Your task to perform on an android device: Open notification settings Image 0: 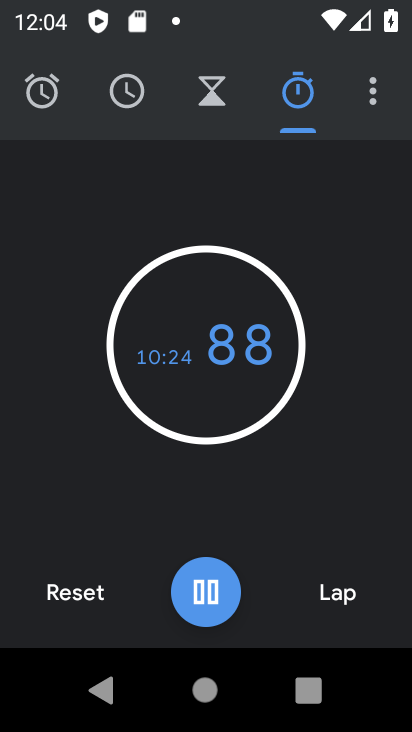
Step 0: press home button
Your task to perform on an android device: Open notification settings Image 1: 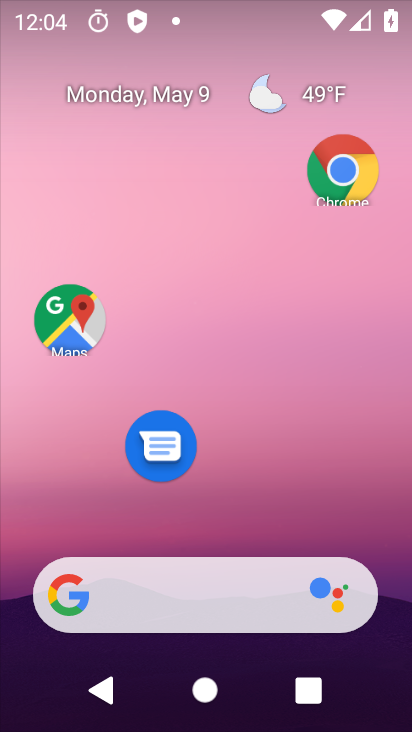
Step 1: drag from (237, 484) to (350, 143)
Your task to perform on an android device: Open notification settings Image 2: 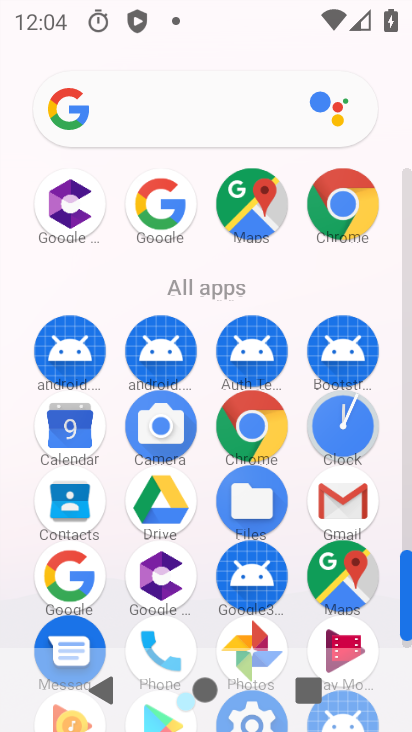
Step 2: drag from (74, 593) to (295, 175)
Your task to perform on an android device: Open notification settings Image 3: 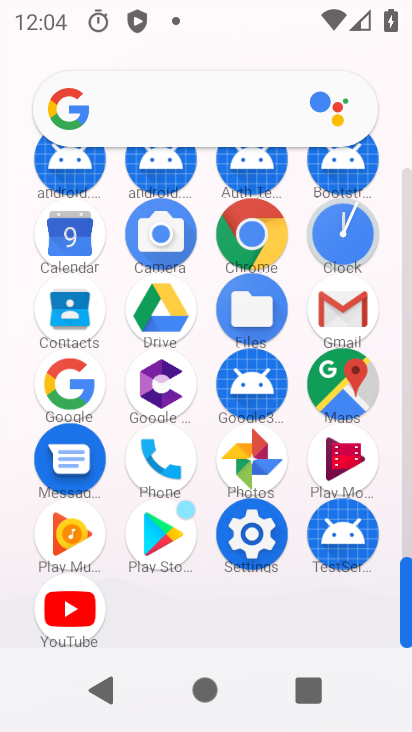
Step 3: click (240, 539)
Your task to perform on an android device: Open notification settings Image 4: 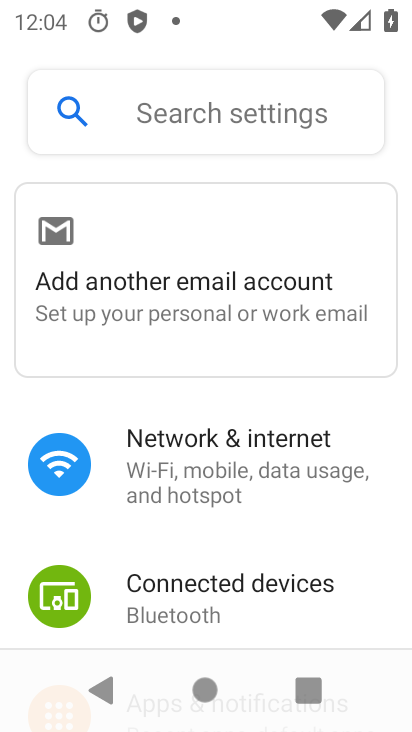
Step 4: drag from (222, 560) to (367, 177)
Your task to perform on an android device: Open notification settings Image 5: 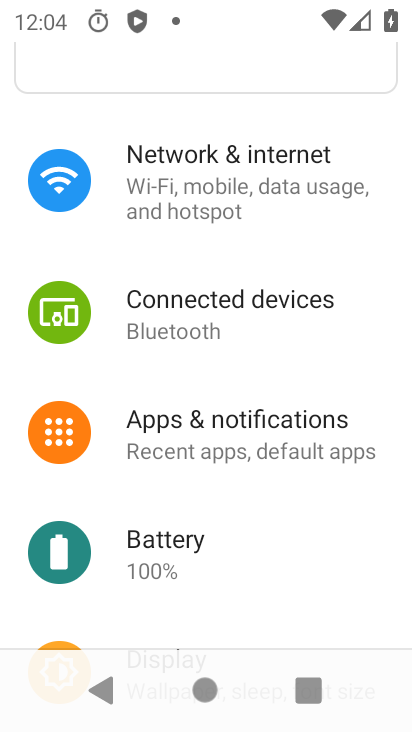
Step 5: drag from (177, 496) to (194, 461)
Your task to perform on an android device: Open notification settings Image 6: 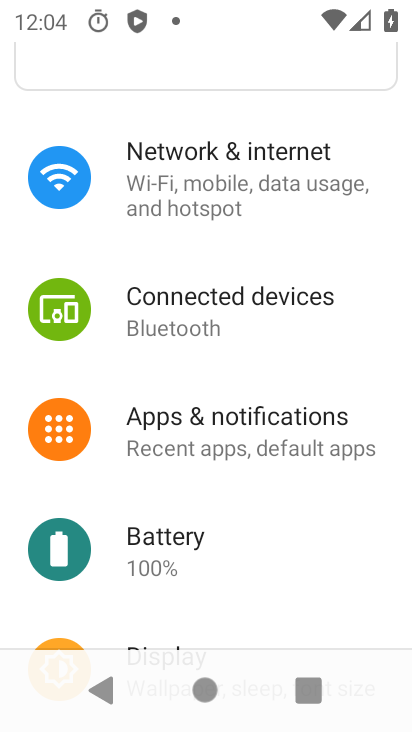
Step 6: click (137, 426)
Your task to perform on an android device: Open notification settings Image 7: 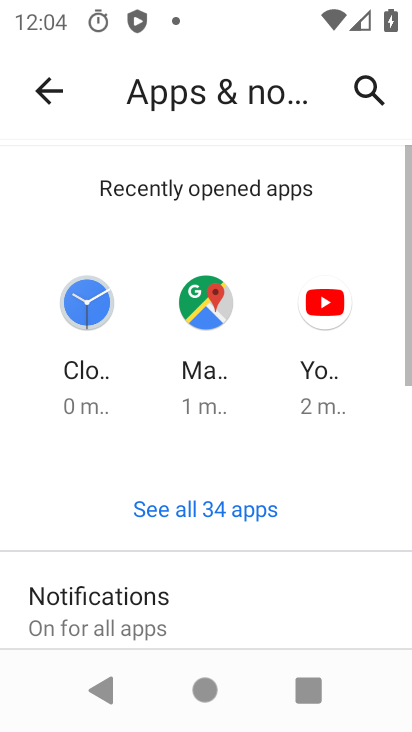
Step 7: drag from (175, 502) to (395, 85)
Your task to perform on an android device: Open notification settings Image 8: 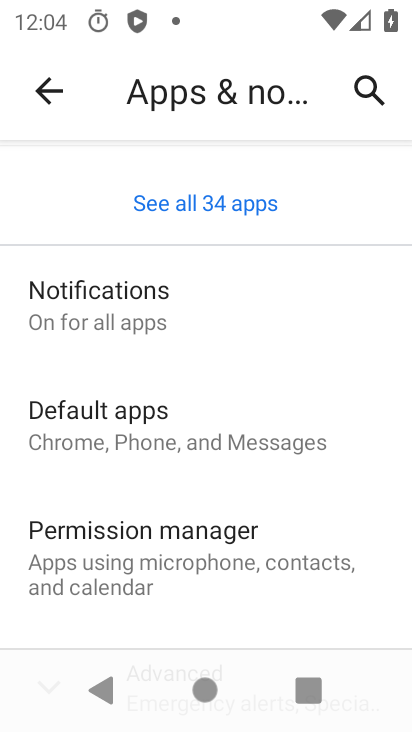
Step 8: click (255, 295)
Your task to perform on an android device: Open notification settings Image 9: 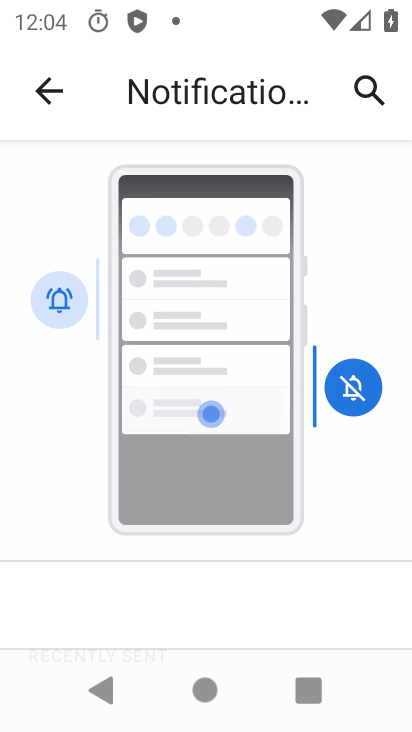
Step 9: task complete